Your task to perform on an android device: change text size in settings app Image 0: 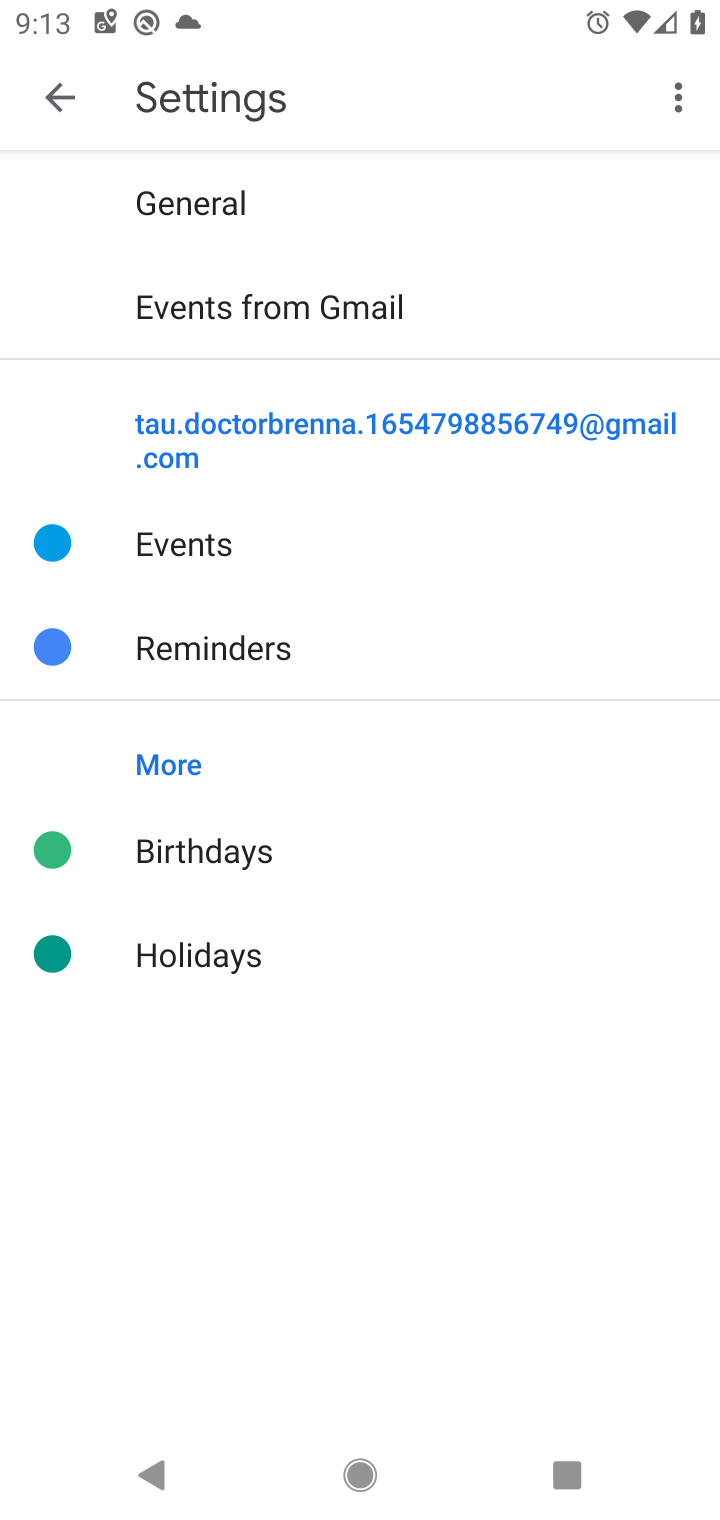
Step 0: press home button
Your task to perform on an android device: change text size in settings app Image 1: 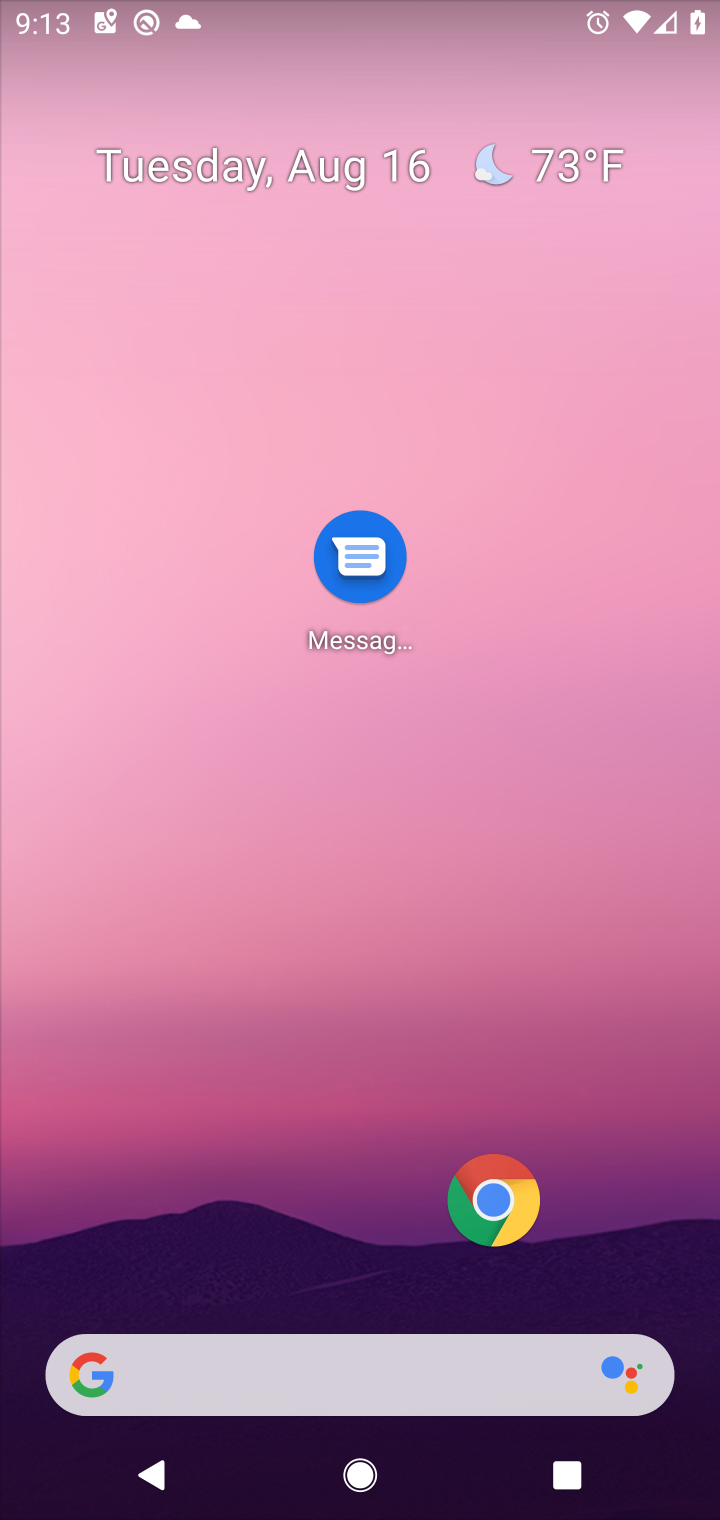
Step 1: drag from (157, 1243) to (404, 50)
Your task to perform on an android device: change text size in settings app Image 2: 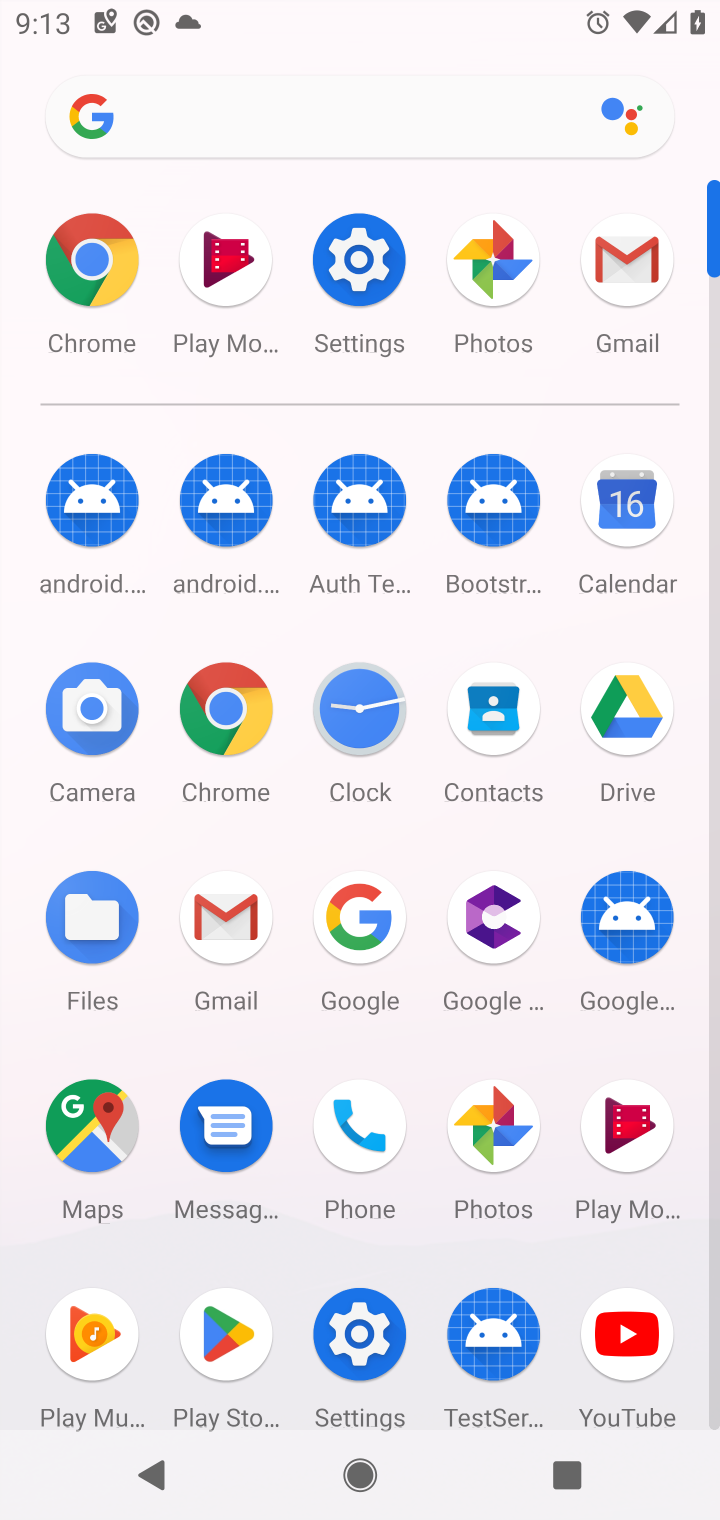
Step 2: click (345, 1342)
Your task to perform on an android device: change text size in settings app Image 3: 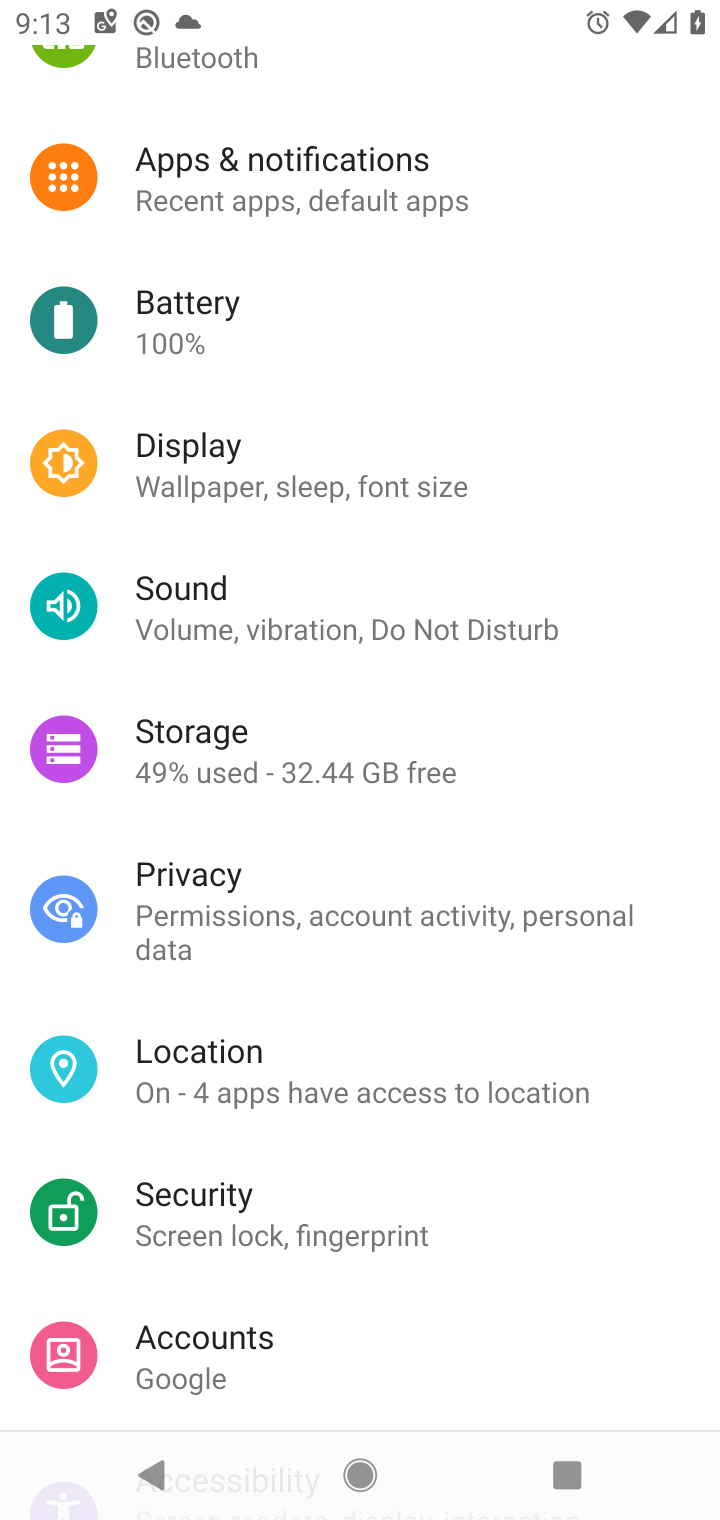
Step 3: click (334, 457)
Your task to perform on an android device: change text size in settings app Image 4: 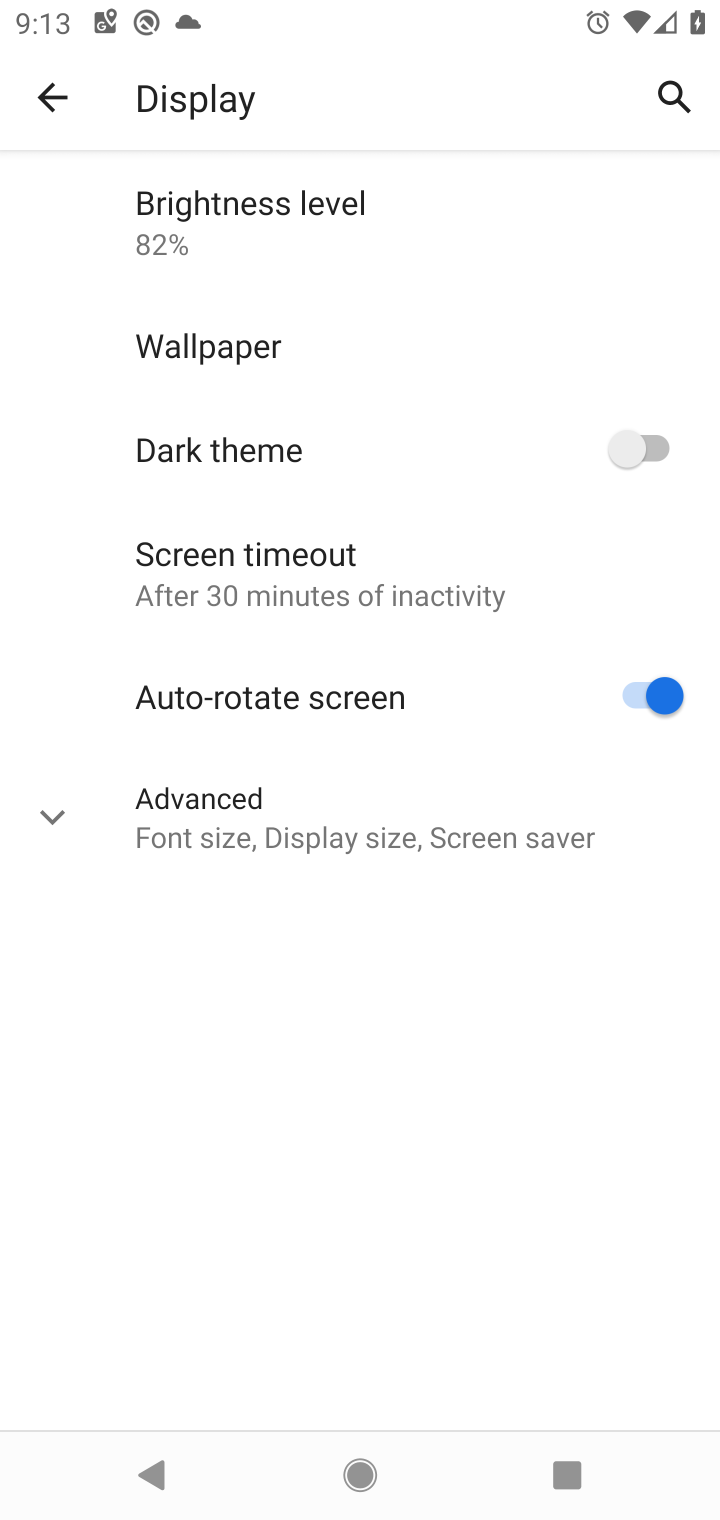
Step 4: click (284, 820)
Your task to perform on an android device: change text size in settings app Image 5: 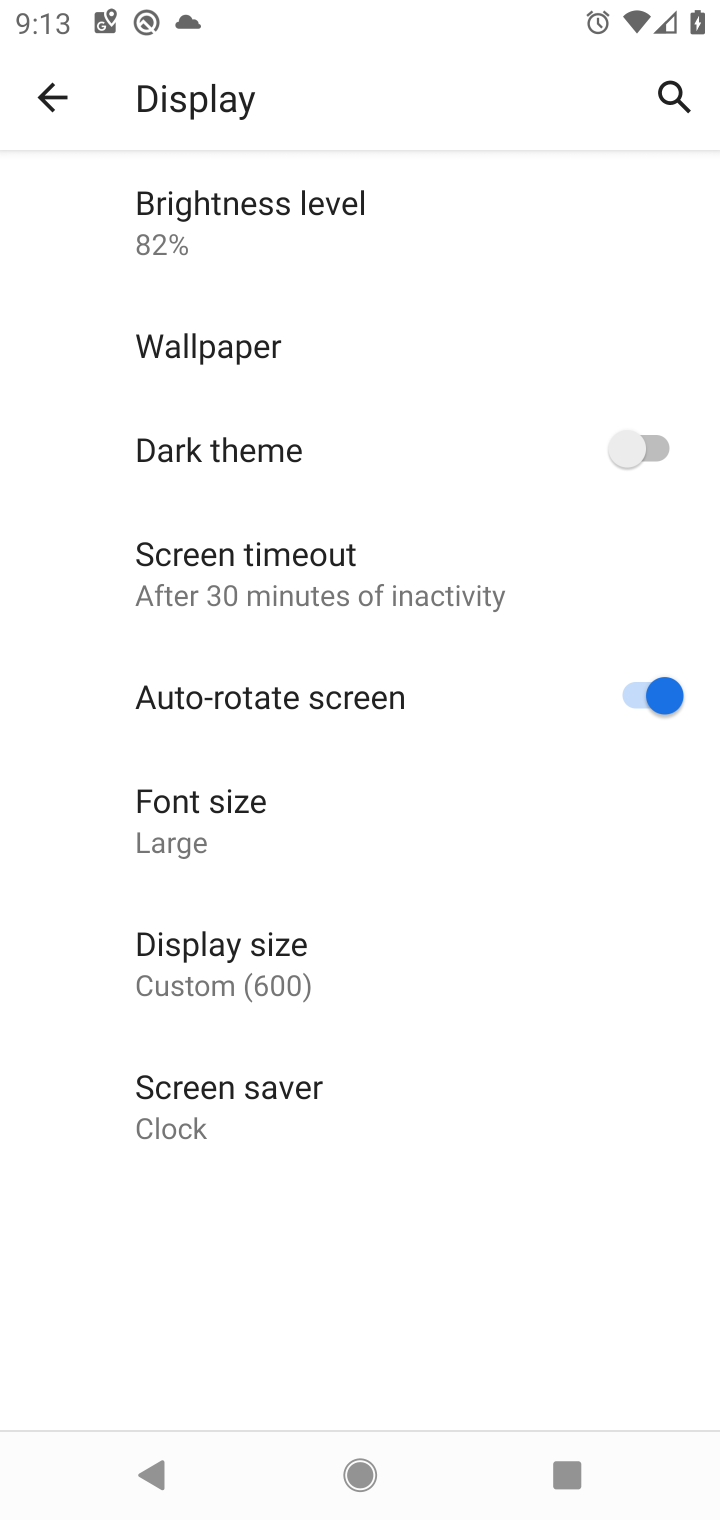
Step 5: click (248, 811)
Your task to perform on an android device: change text size in settings app Image 6: 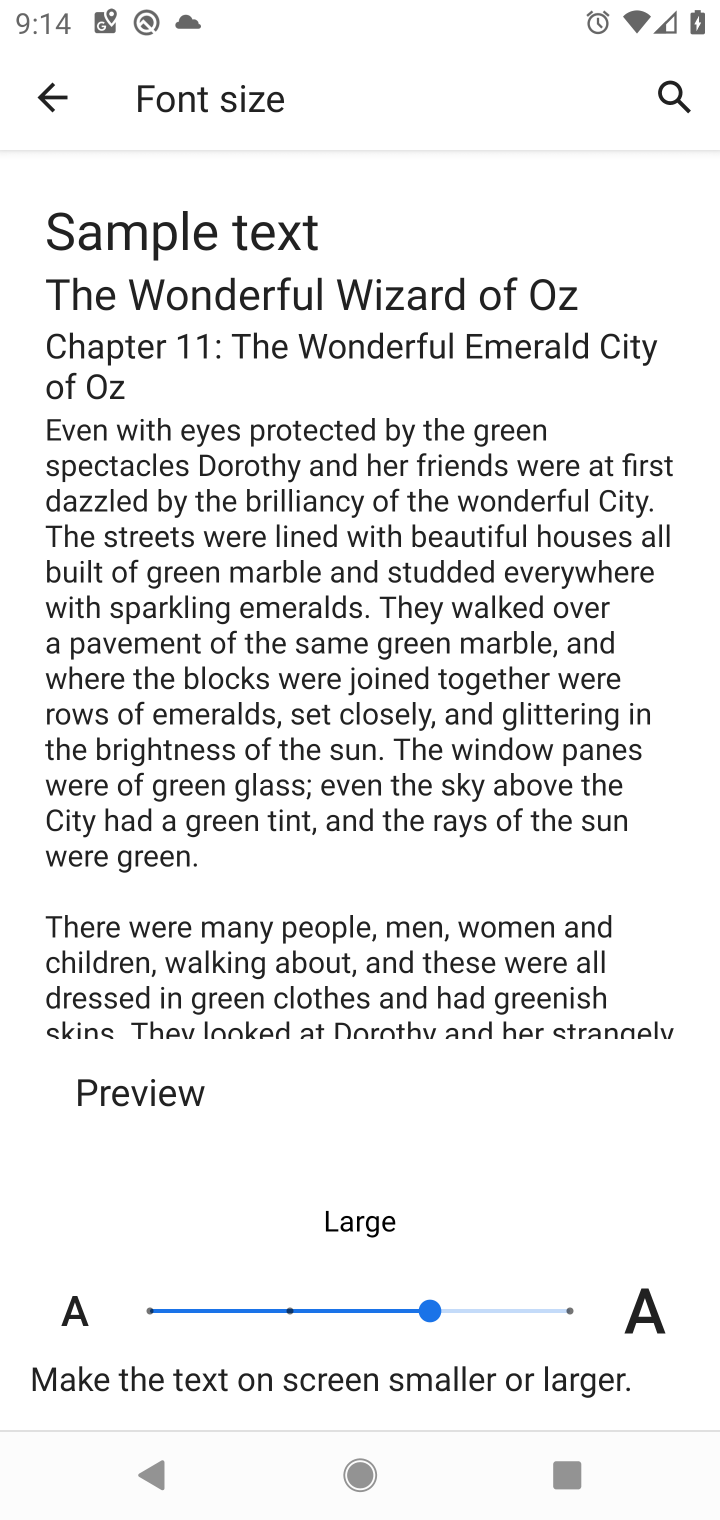
Step 6: click (401, 1308)
Your task to perform on an android device: change text size in settings app Image 7: 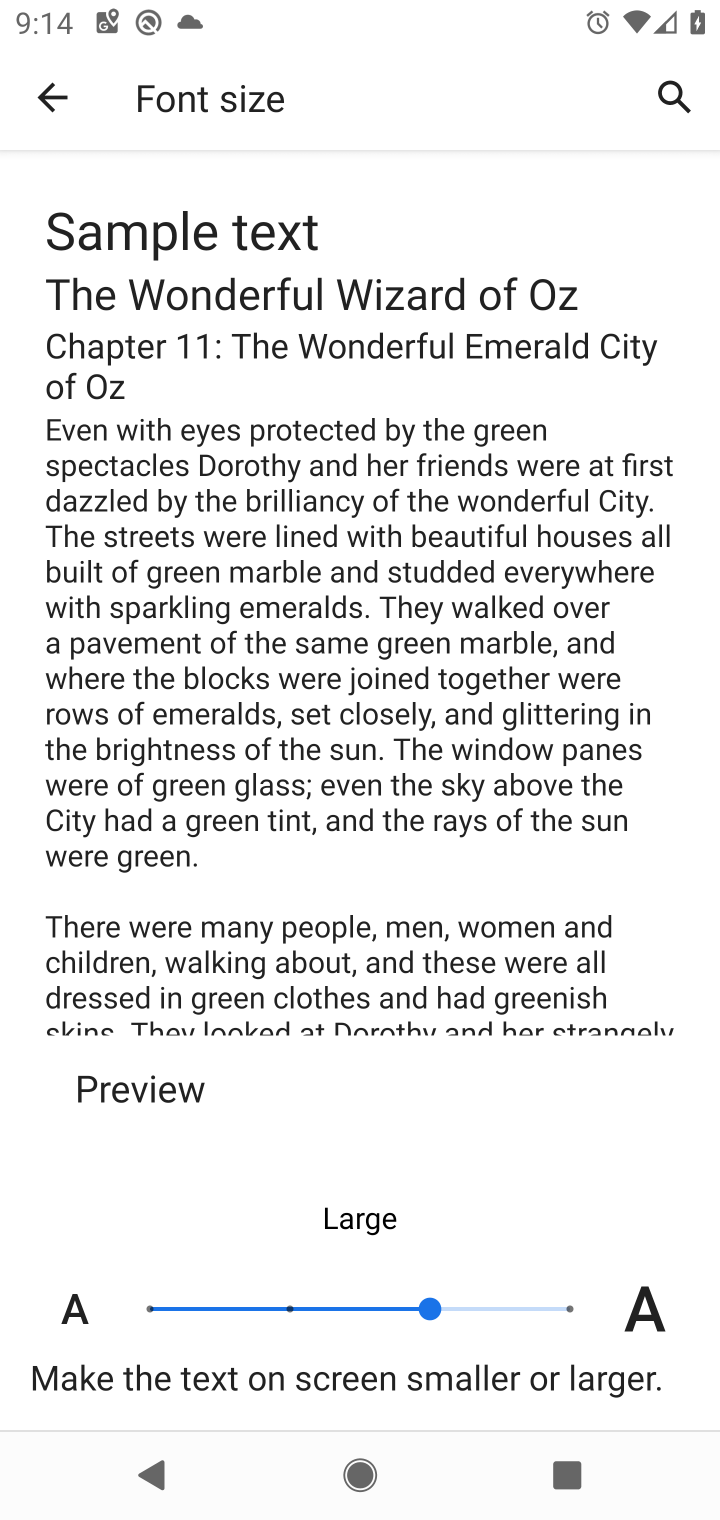
Step 7: task complete